Your task to perform on an android device: turn off priority inbox in the gmail app Image 0: 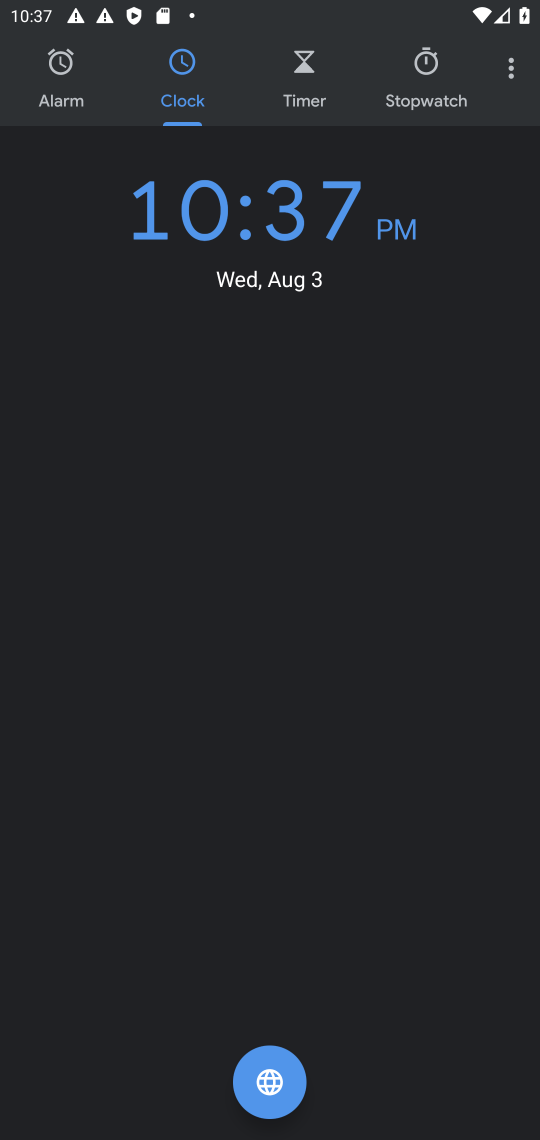
Step 0: press home button
Your task to perform on an android device: turn off priority inbox in the gmail app Image 1: 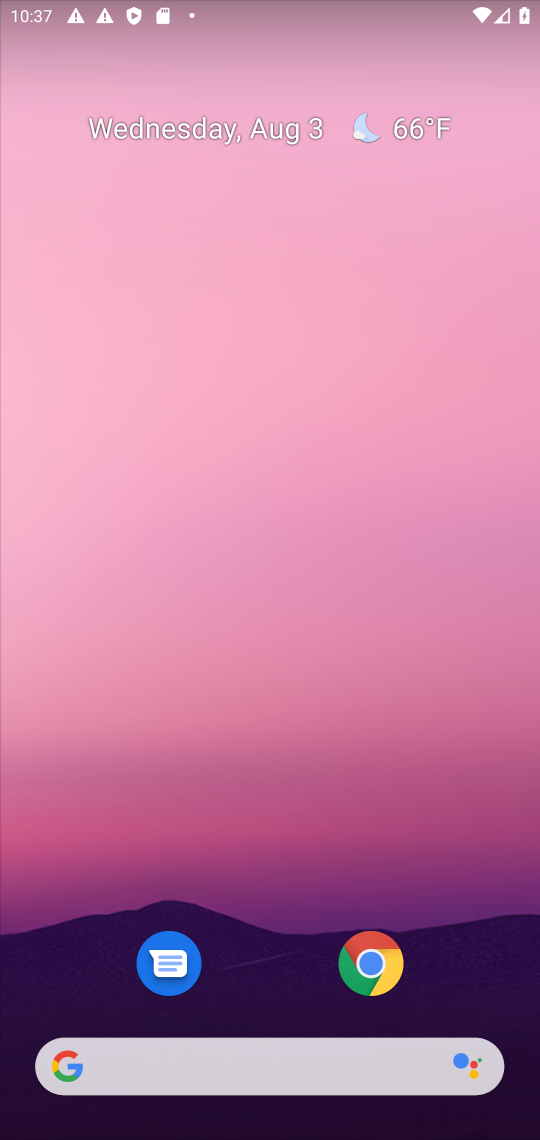
Step 1: drag from (481, 949) to (481, 280)
Your task to perform on an android device: turn off priority inbox in the gmail app Image 2: 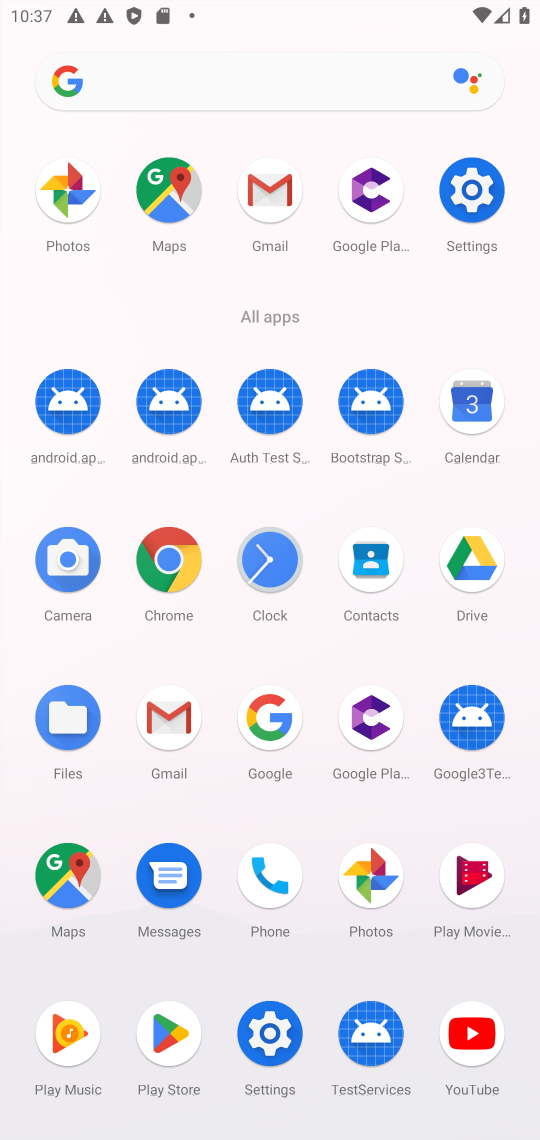
Step 2: click (156, 717)
Your task to perform on an android device: turn off priority inbox in the gmail app Image 3: 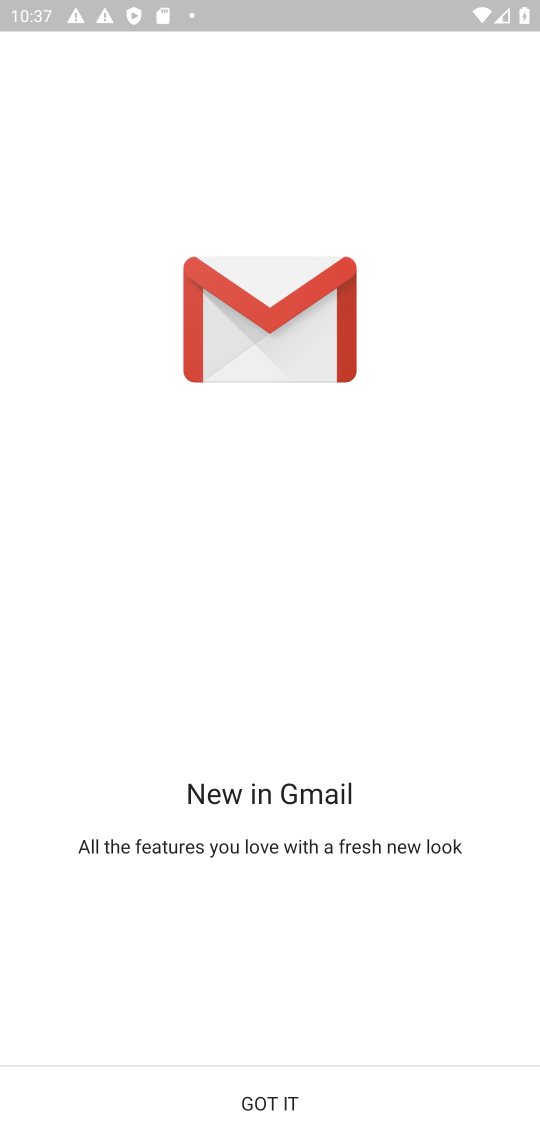
Step 3: click (262, 1086)
Your task to perform on an android device: turn off priority inbox in the gmail app Image 4: 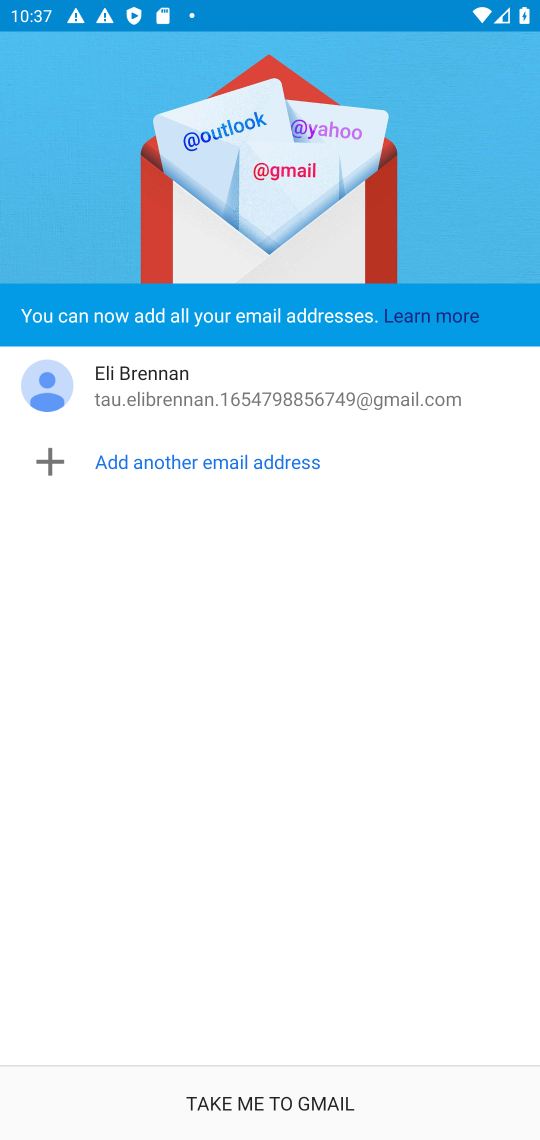
Step 4: click (279, 1075)
Your task to perform on an android device: turn off priority inbox in the gmail app Image 5: 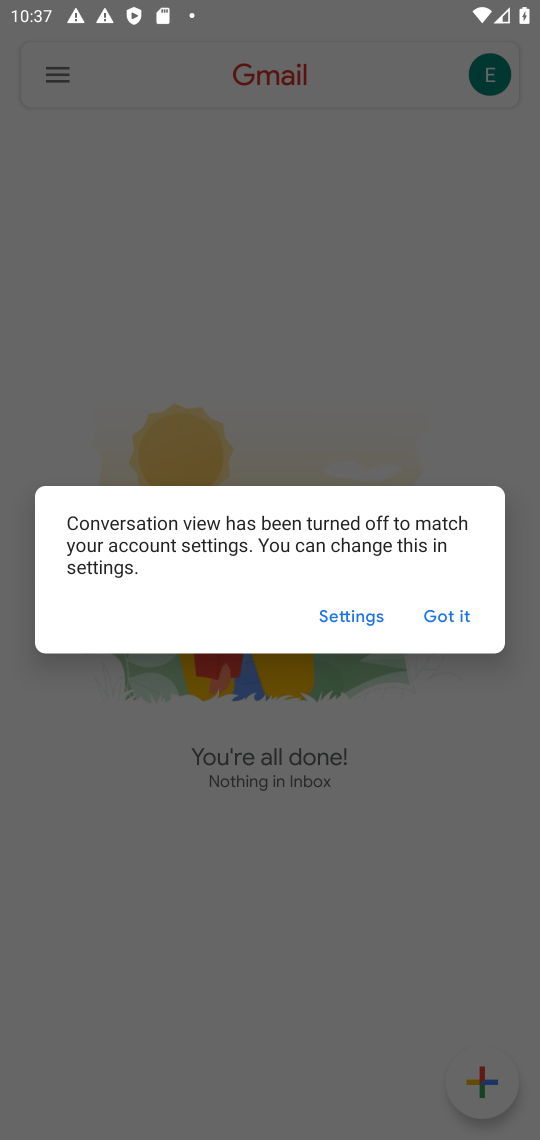
Step 5: click (456, 619)
Your task to perform on an android device: turn off priority inbox in the gmail app Image 6: 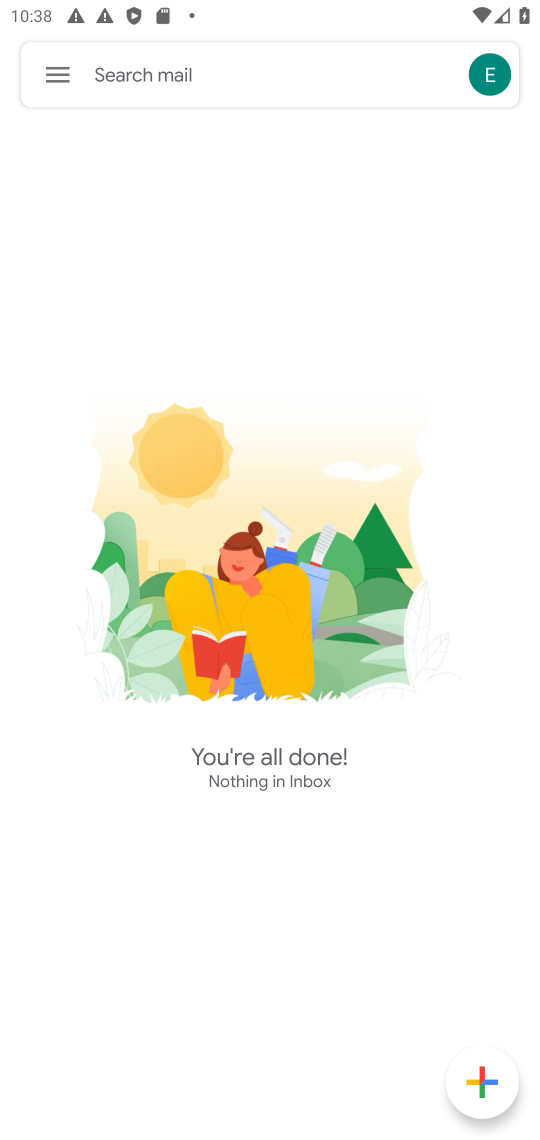
Step 6: click (41, 83)
Your task to perform on an android device: turn off priority inbox in the gmail app Image 7: 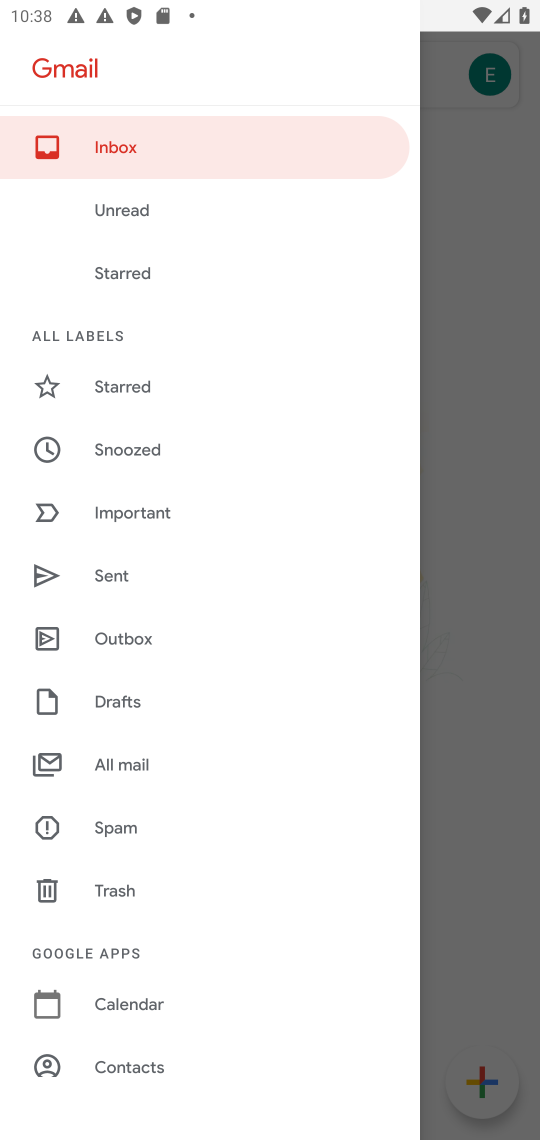
Step 7: drag from (186, 1080) to (233, 583)
Your task to perform on an android device: turn off priority inbox in the gmail app Image 8: 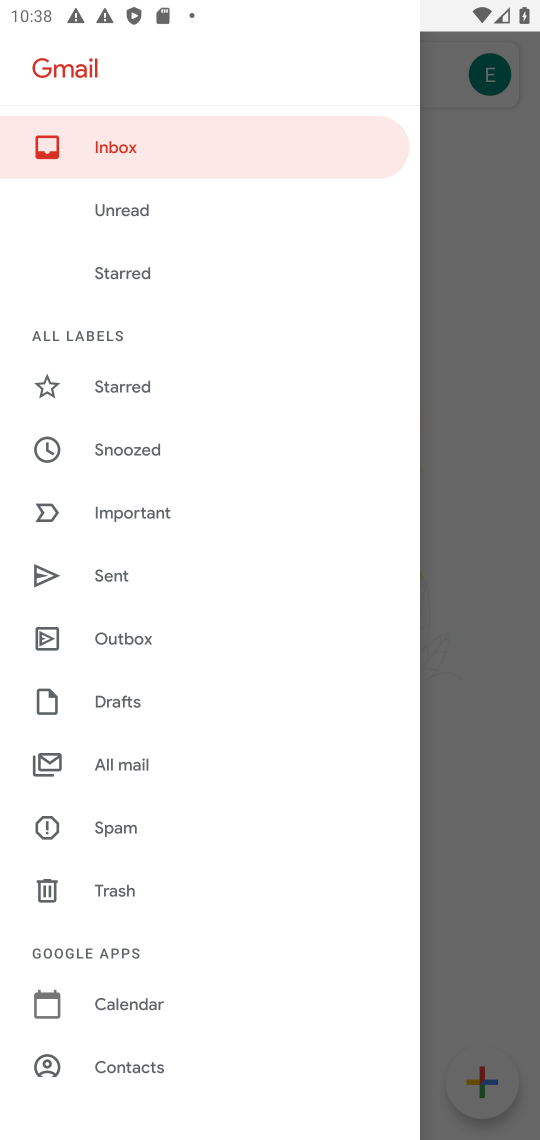
Step 8: drag from (218, 941) to (302, 433)
Your task to perform on an android device: turn off priority inbox in the gmail app Image 9: 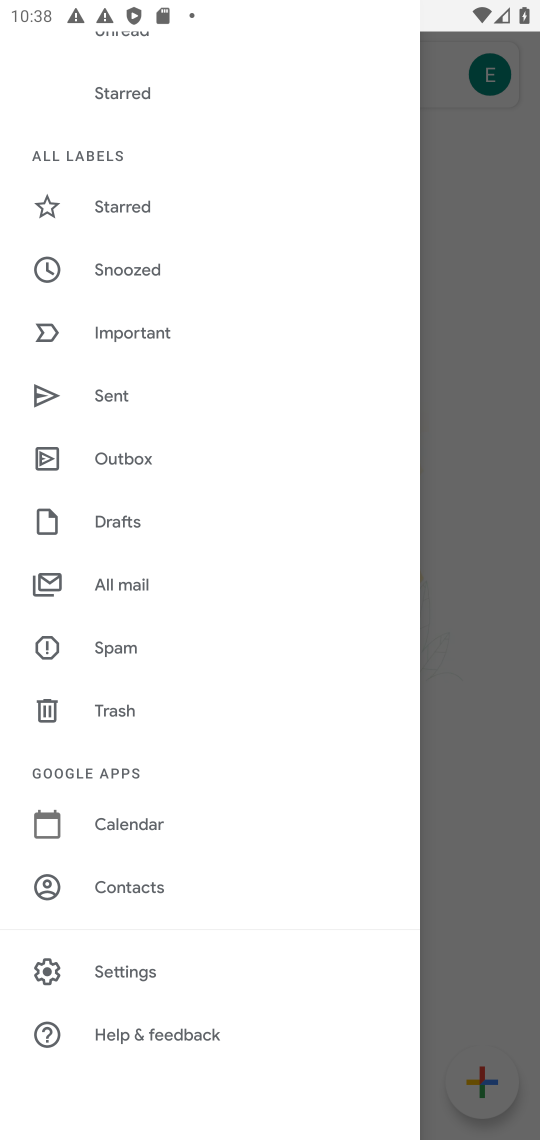
Step 9: click (127, 972)
Your task to perform on an android device: turn off priority inbox in the gmail app Image 10: 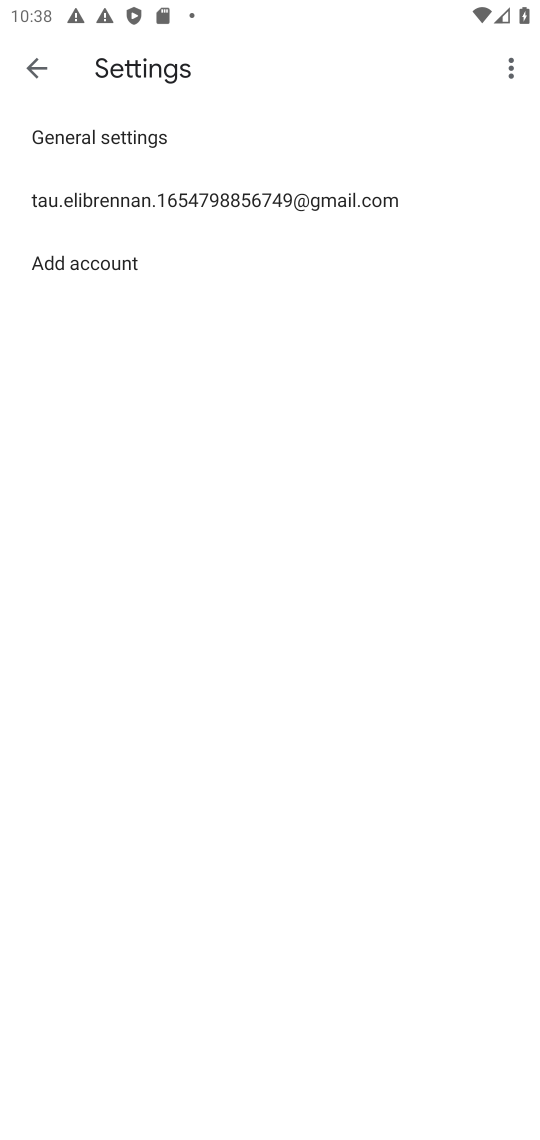
Step 10: click (296, 193)
Your task to perform on an android device: turn off priority inbox in the gmail app Image 11: 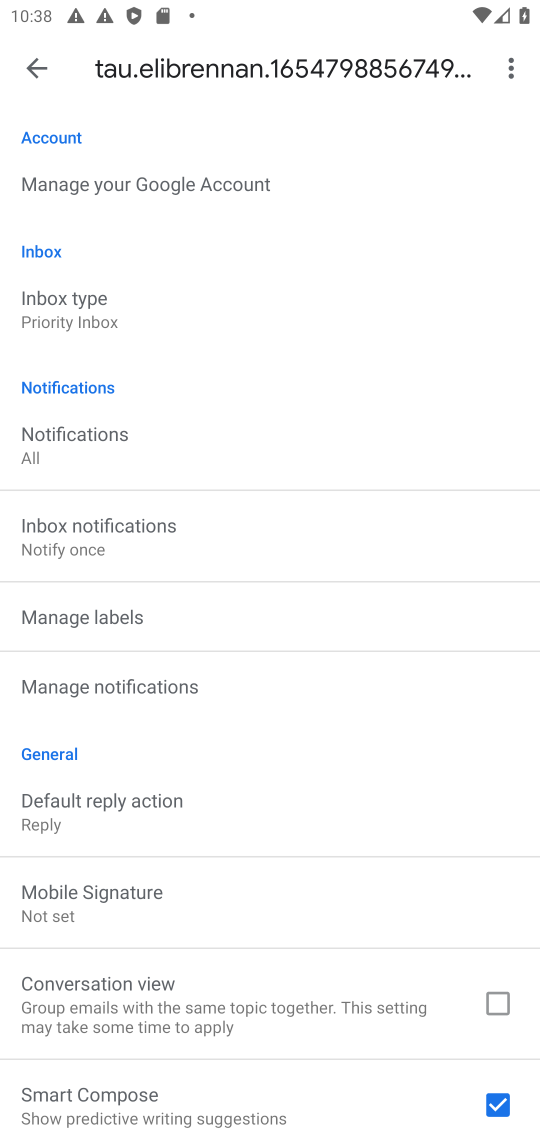
Step 11: click (141, 309)
Your task to perform on an android device: turn off priority inbox in the gmail app Image 12: 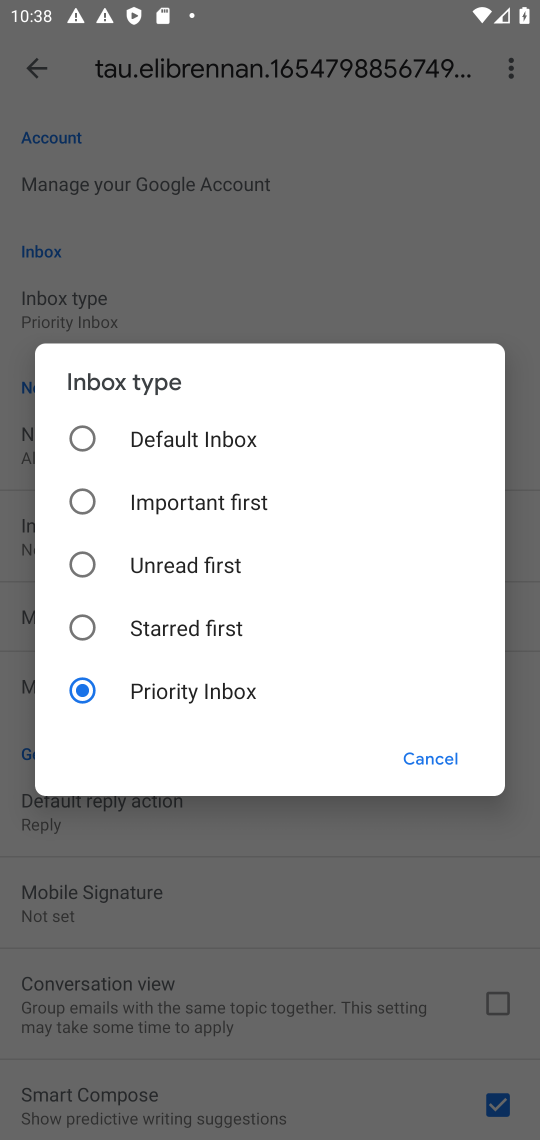
Step 12: click (153, 432)
Your task to perform on an android device: turn off priority inbox in the gmail app Image 13: 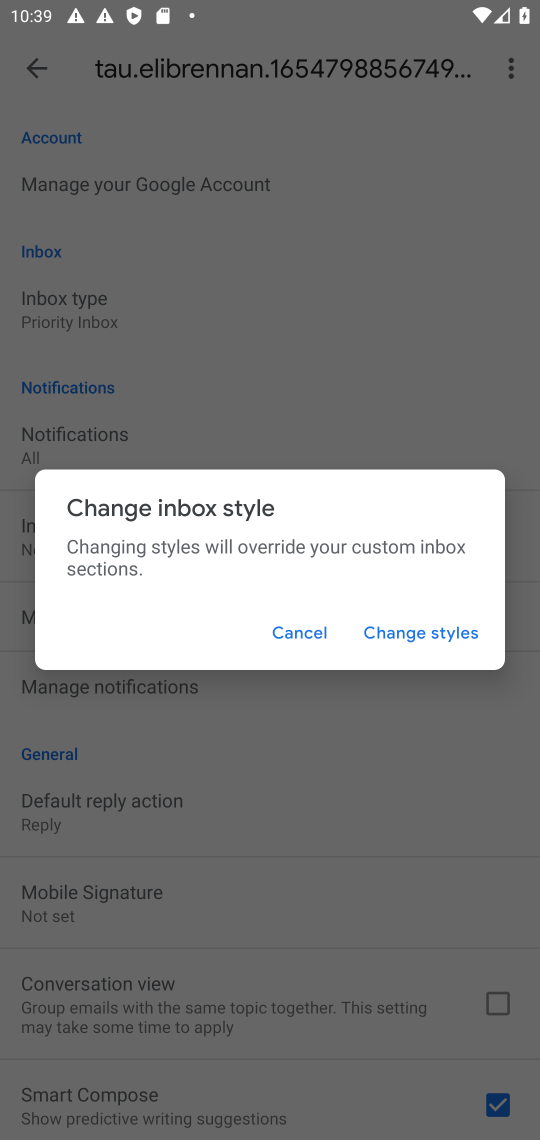
Step 13: click (153, 432)
Your task to perform on an android device: turn off priority inbox in the gmail app Image 14: 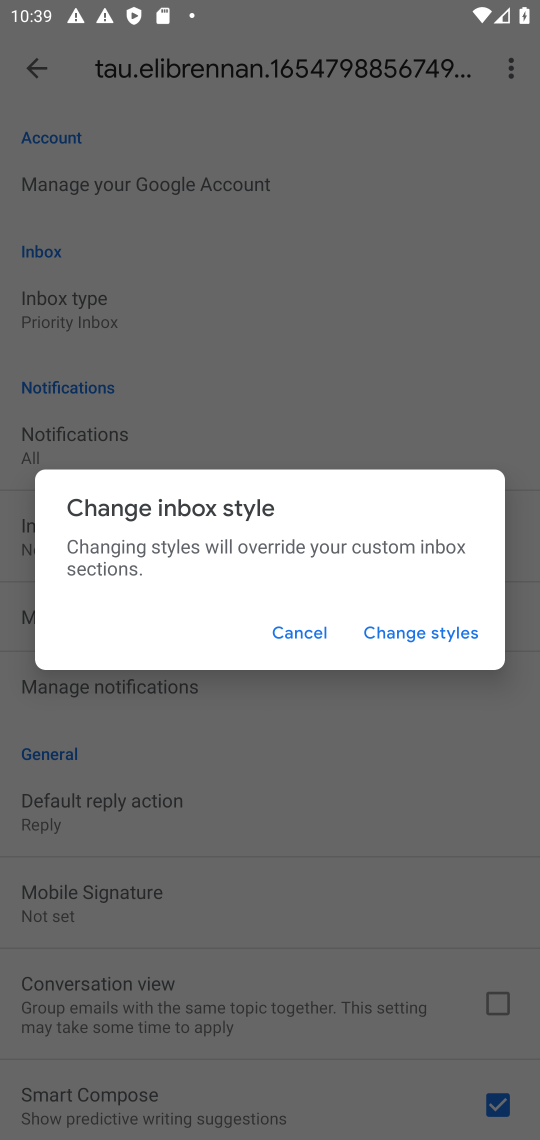
Step 14: click (372, 631)
Your task to perform on an android device: turn off priority inbox in the gmail app Image 15: 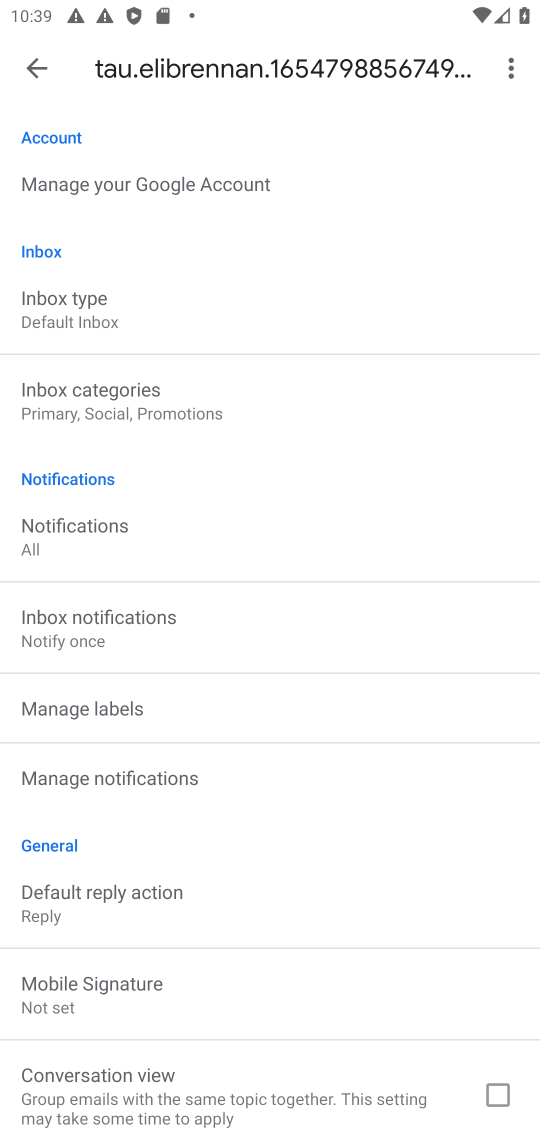
Step 15: task complete